Your task to perform on an android device: Open the phone app and click the voicemail tab. Image 0: 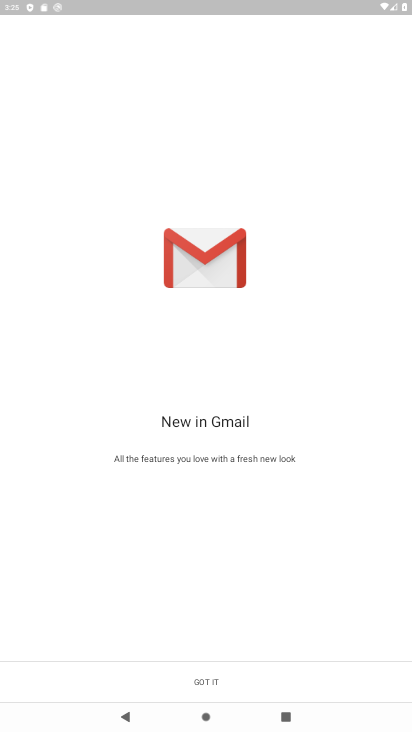
Step 0: press home button
Your task to perform on an android device: Open the phone app and click the voicemail tab. Image 1: 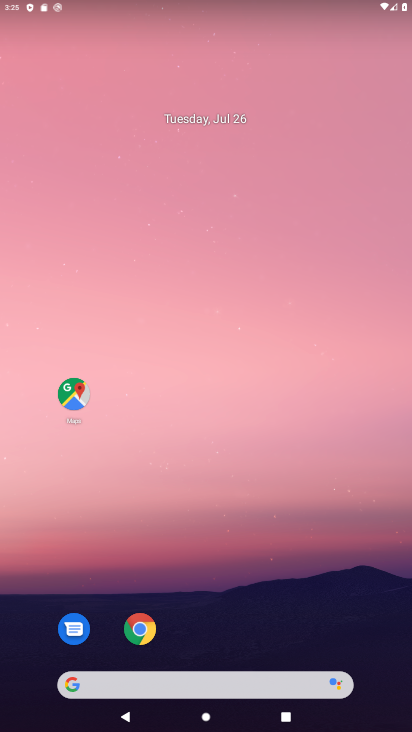
Step 1: drag from (274, 604) to (171, 226)
Your task to perform on an android device: Open the phone app and click the voicemail tab. Image 2: 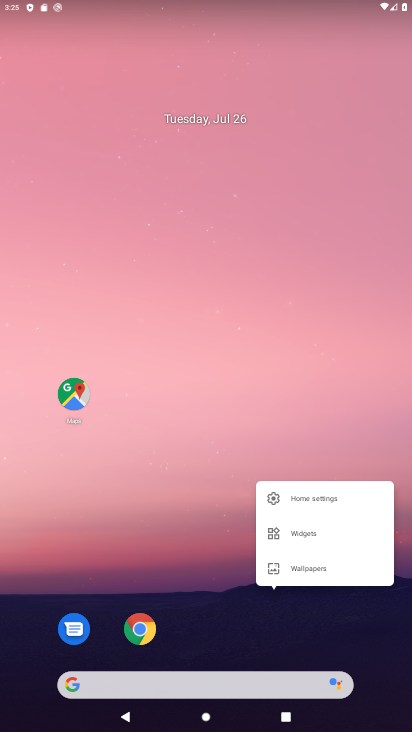
Step 2: click (225, 476)
Your task to perform on an android device: Open the phone app and click the voicemail tab. Image 3: 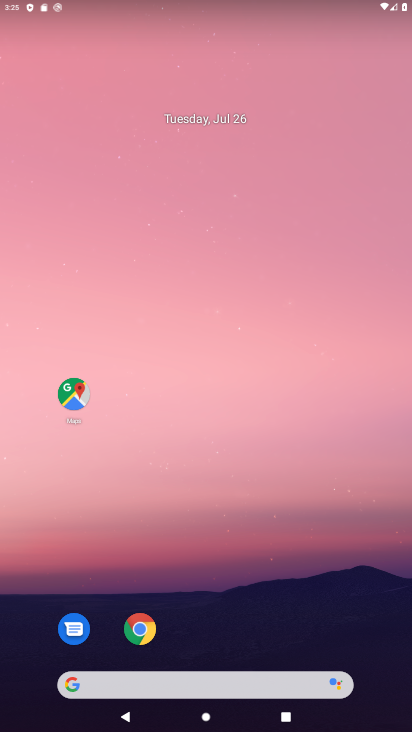
Step 3: drag from (290, 617) to (174, 103)
Your task to perform on an android device: Open the phone app and click the voicemail tab. Image 4: 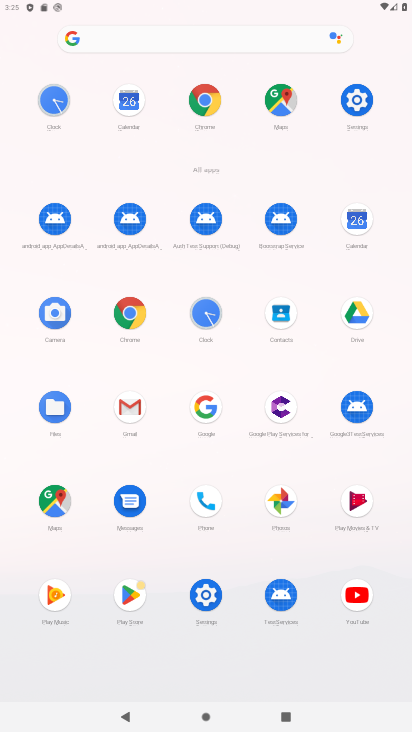
Step 4: click (198, 489)
Your task to perform on an android device: Open the phone app and click the voicemail tab. Image 5: 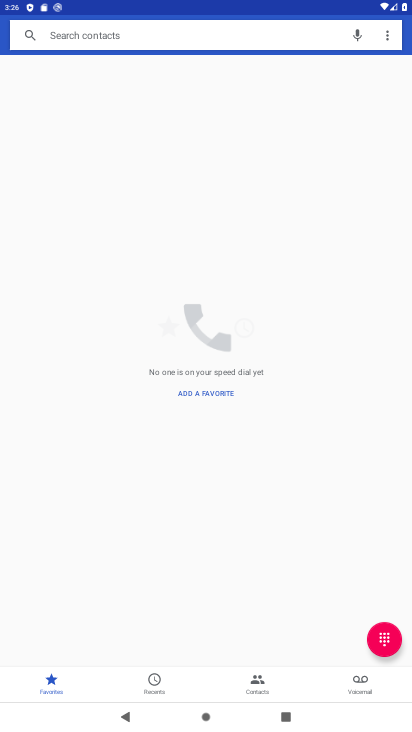
Step 5: click (361, 677)
Your task to perform on an android device: Open the phone app and click the voicemail tab. Image 6: 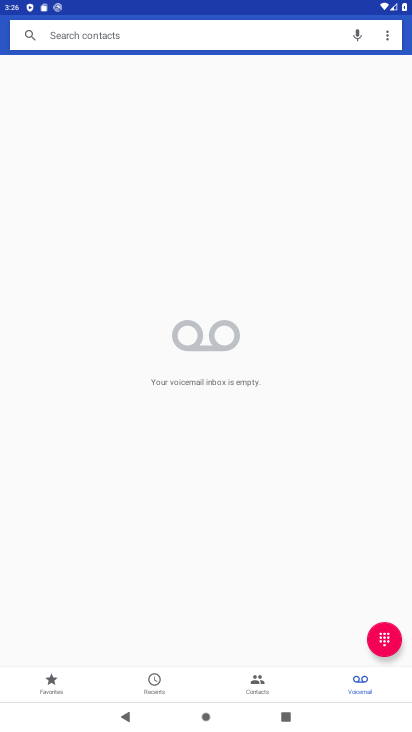
Step 6: task complete